Your task to perform on an android device: turn on location history Image 0: 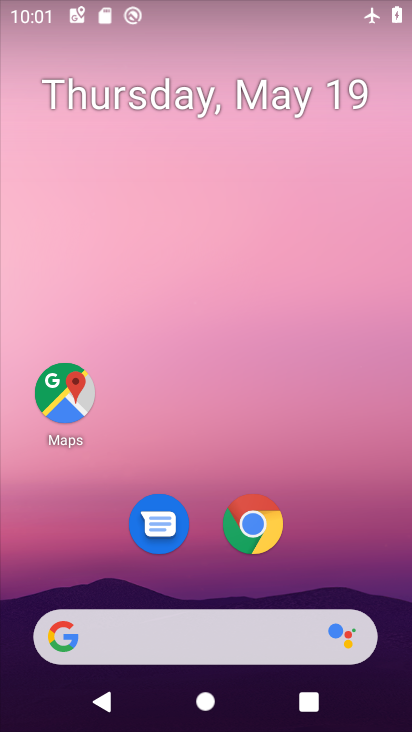
Step 0: drag from (221, 468) to (224, 17)
Your task to perform on an android device: turn on location history Image 1: 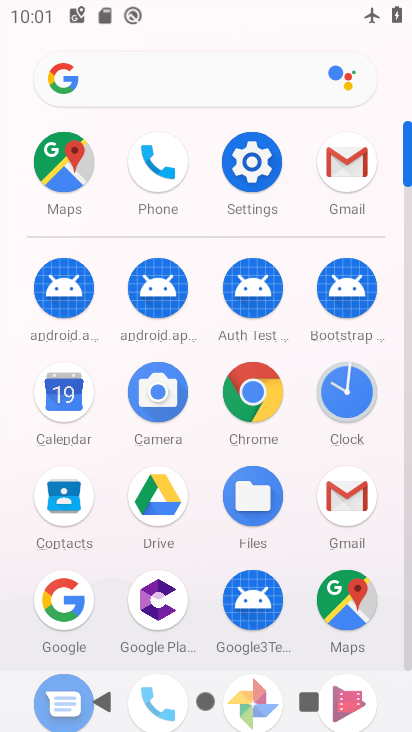
Step 1: click (245, 155)
Your task to perform on an android device: turn on location history Image 2: 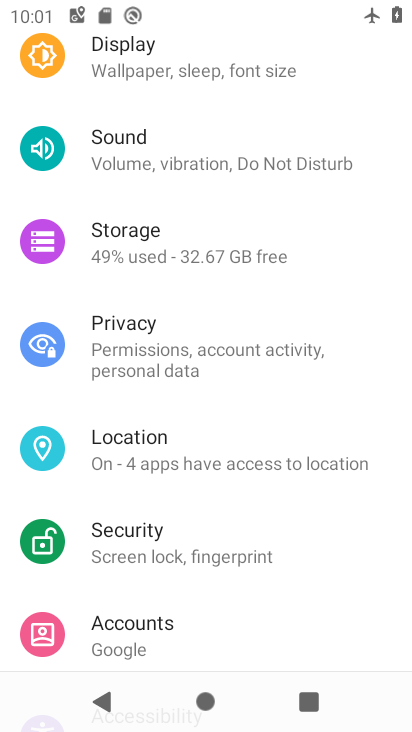
Step 2: click (222, 443)
Your task to perform on an android device: turn on location history Image 3: 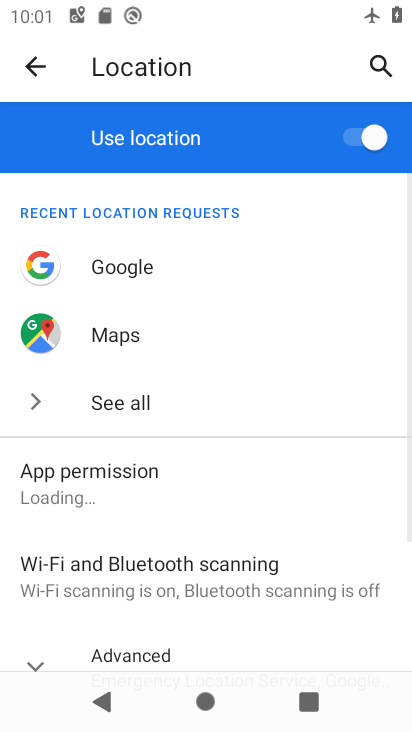
Step 3: drag from (230, 493) to (245, 182)
Your task to perform on an android device: turn on location history Image 4: 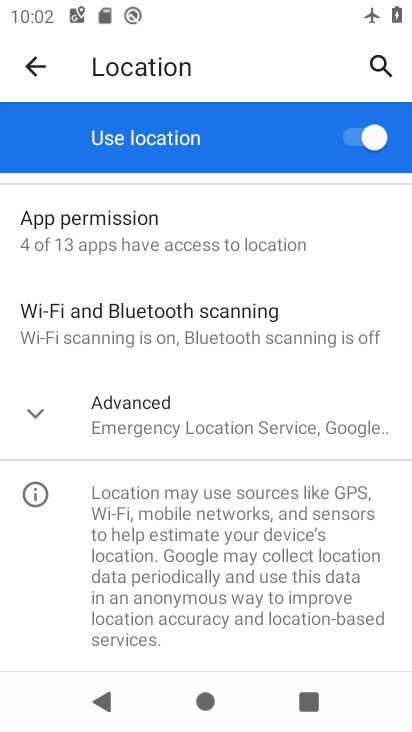
Step 4: click (34, 414)
Your task to perform on an android device: turn on location history Image 5: 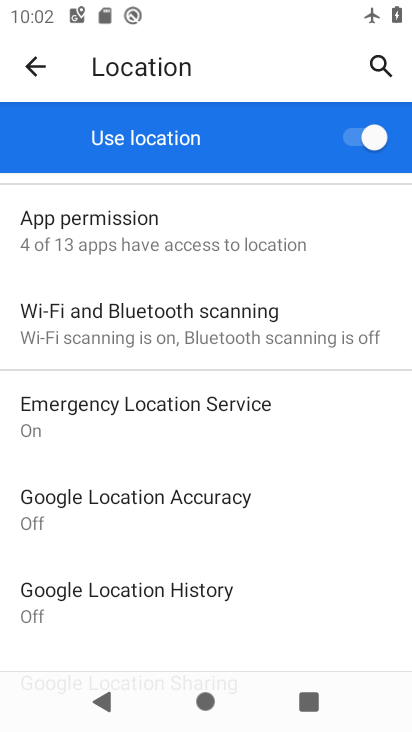
Step 5: drag from (109, 544) to (133, 239)
Your task to perform on an android device: turn on location history Image 6: 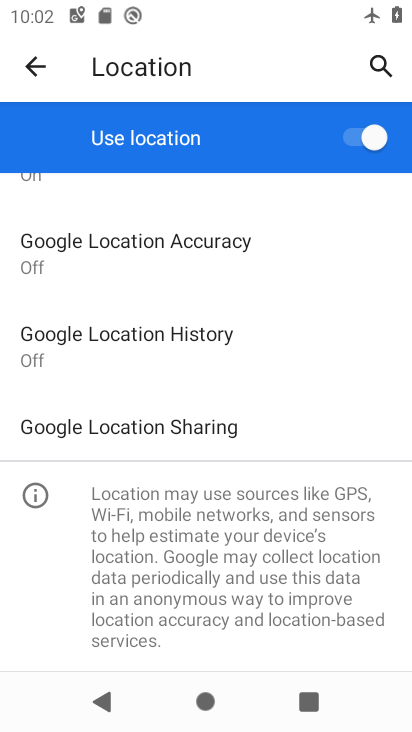
Step 6: click (139, 346)
Your task to perform on an android device: turn on location history Image 7: 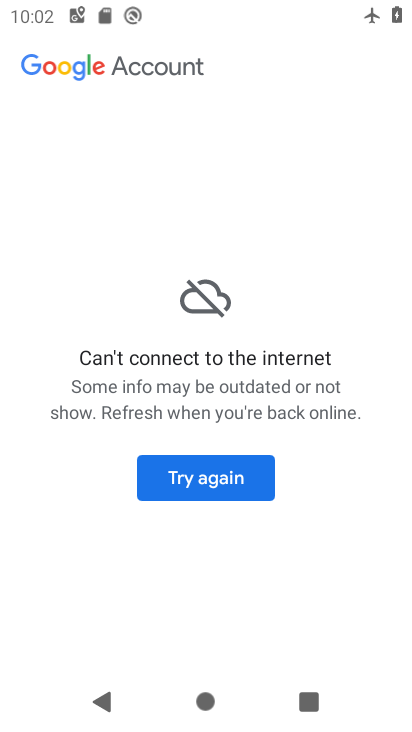
Step 7: task complete